Your task to perform on an android device: set default search engine in the chrome app Image 0: 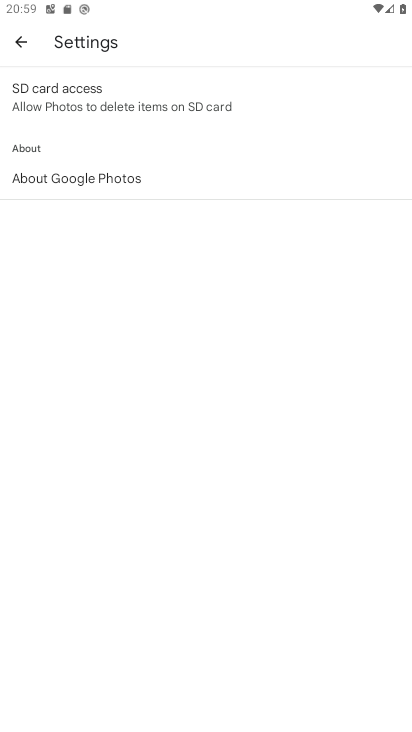
Step 0: click (21, 38)
Your task to perform on an android device: set default search engine in the chrome app Image 1: 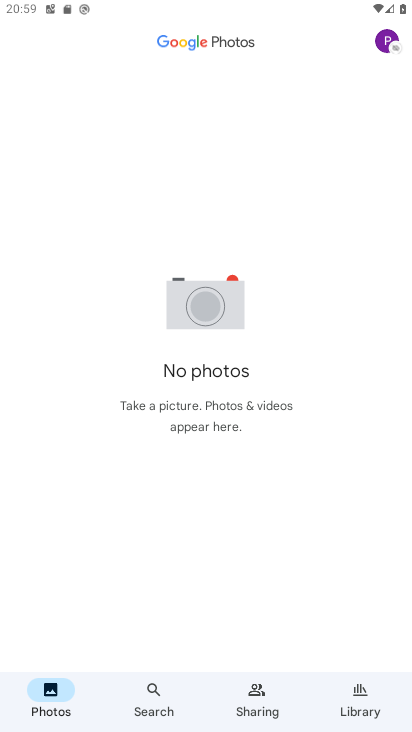
Step 1: press home button
Your task to perform on an android device: set default search engine in the chrome app Image 2: 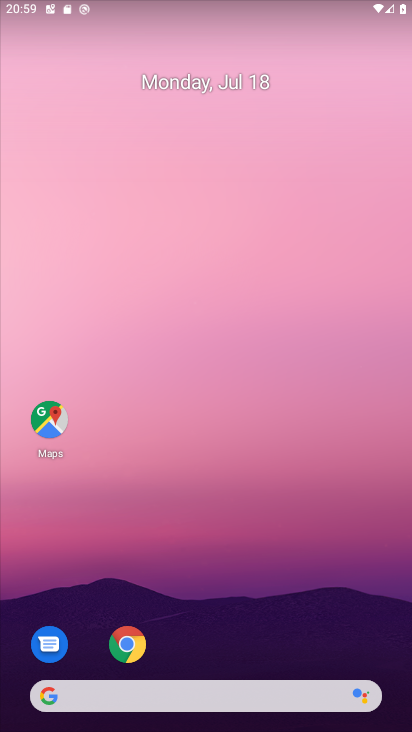
Step 2: click (145, 638)
Your task to perform on an android device: set default search engine in the chrome app Image 3: 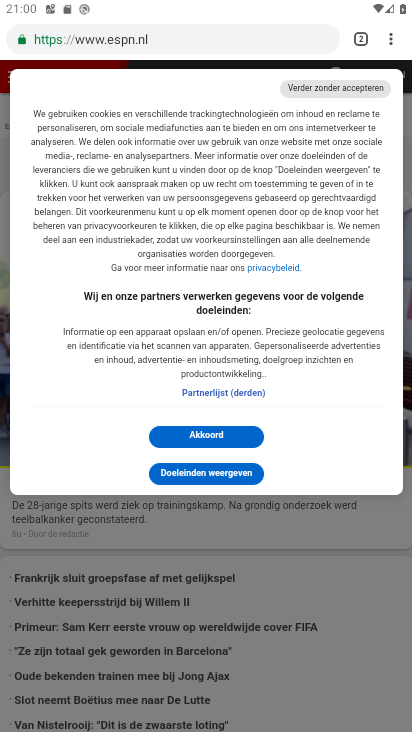
Step 3: click (199, 443)
Your task to perform on an android device: set default search engine in the chrome app Image 4: 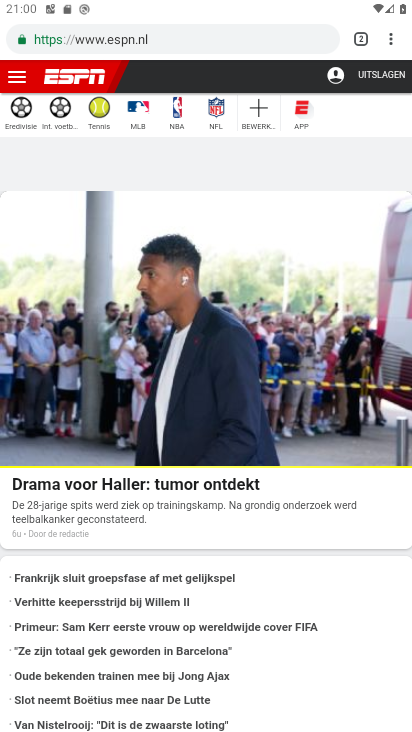
Step 4: click (390, 42)
Your task to perform on an android device: set default search engine in the chrome app Image 5: 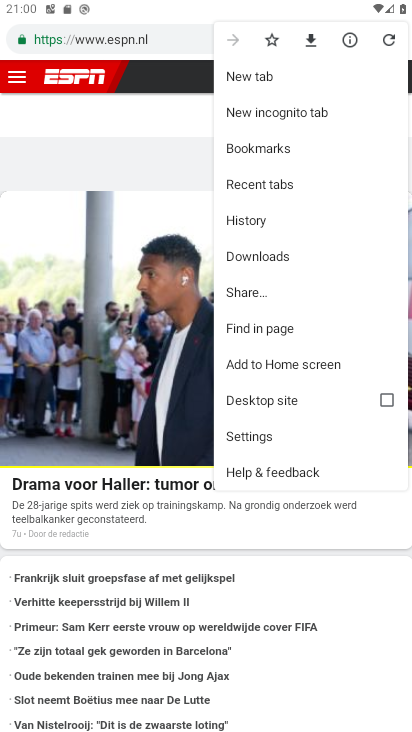
Step 5: click (258, 435)
Your task to perform on an android device: set default search engine in the chrome app Image 6: 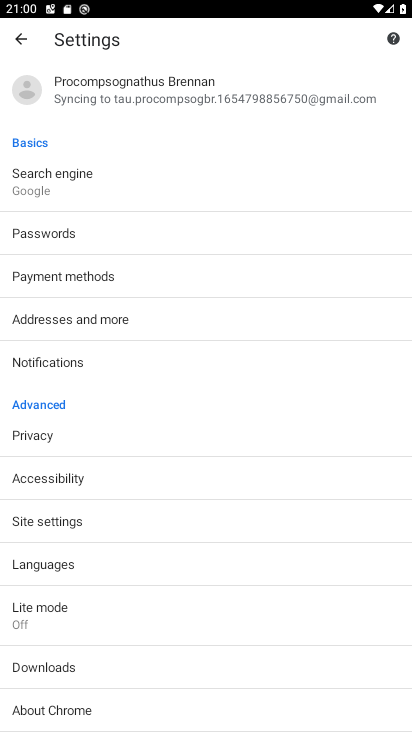
Step 6: click (119, 174)
Your task to perform on an android device: set default search engine in the chrome app Image 7: 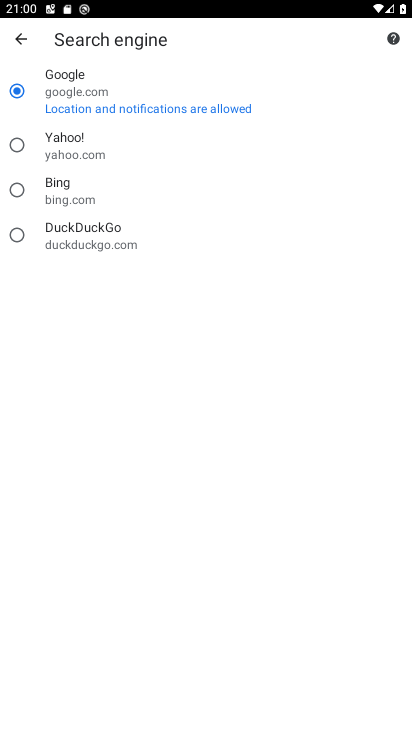
Step 7: click (103, 145)
Your task to perform on an android device: set default search engine in the chrome app Image 8: 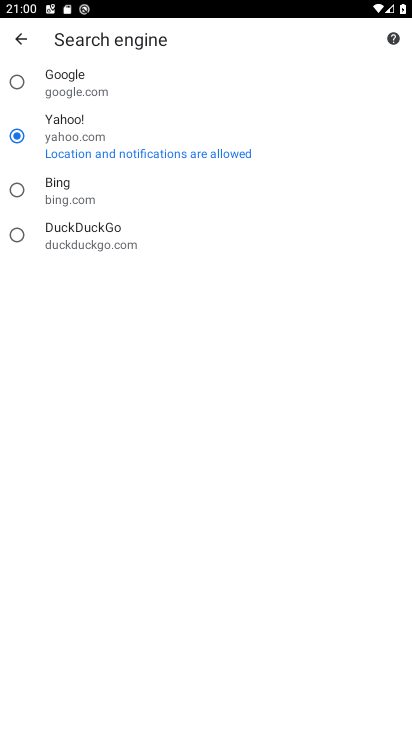
Step 8: task complete